Your task to perform on an android device: Open Google Chrome and open the bookmarks view Image 0: 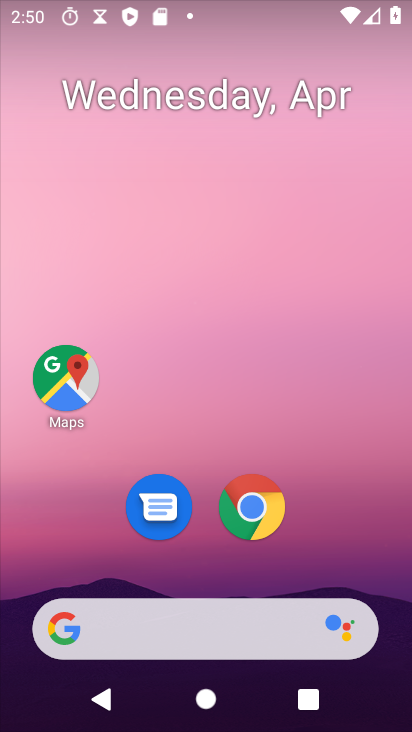
Step 0: press home button
Your task to perform on an android device: Open Google Chrome and open the bookmarks view Image 1: 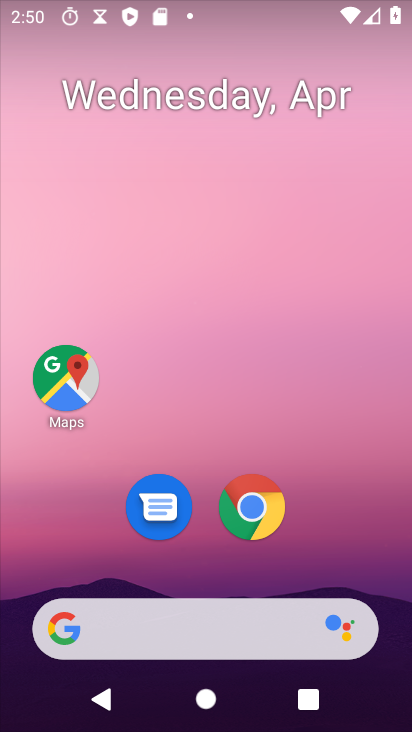
Step 1: click (252, 511)
Your task to perform on an android device: Open Google Chrome and open the bookmarks view Image 2: 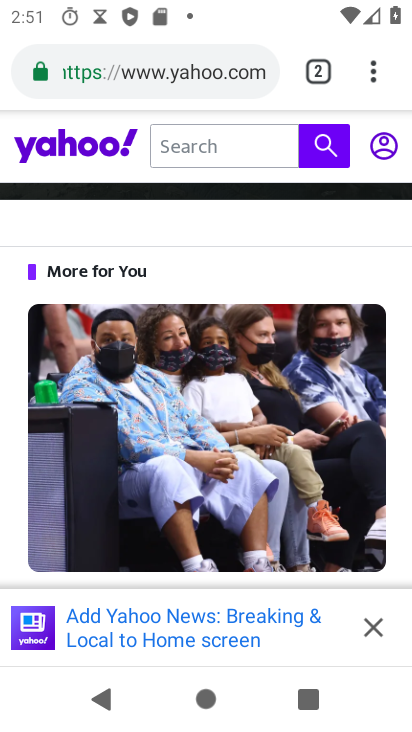
Step 2: task complete